Your task to perform on an android device: snooze an email in the gmail app Image 0: 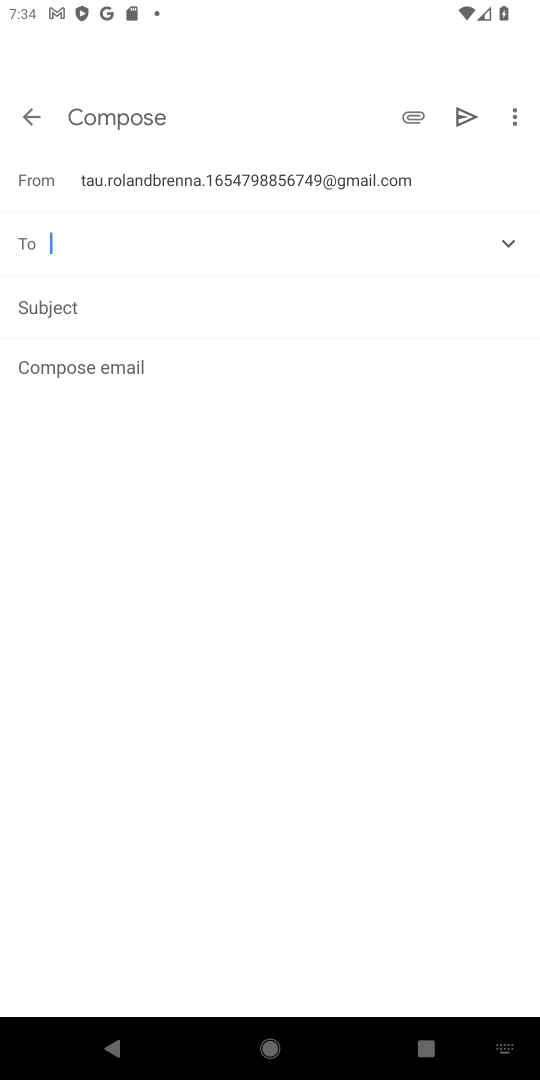
Step 0: press back button
Your task to perform on an android device: snooze an email in the gmail app Image 1: 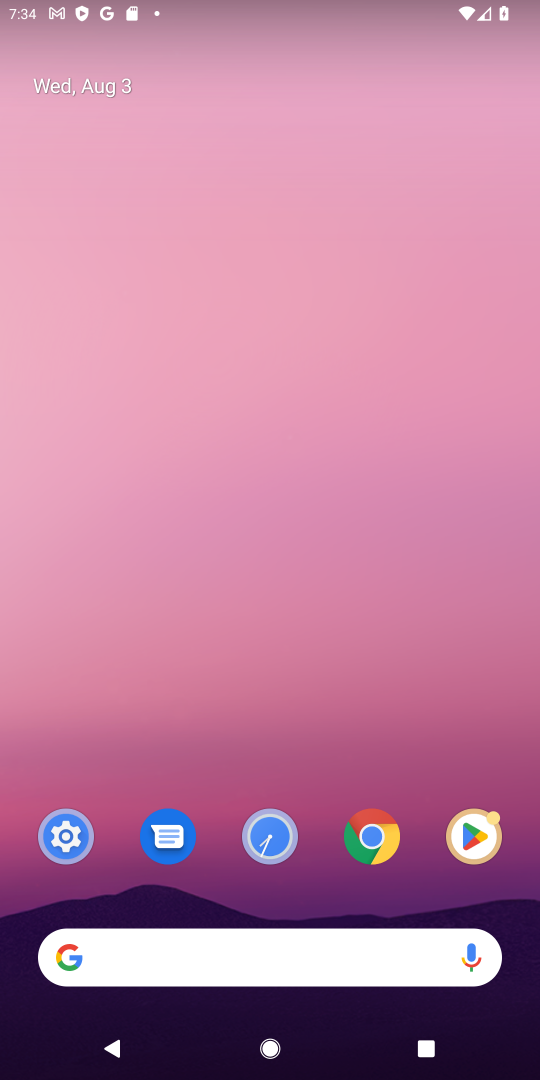
Step 1: drag from (499, 938) to (339, 160)
Your task to perform on an android device: snooze an email in the gmail app Image 2: 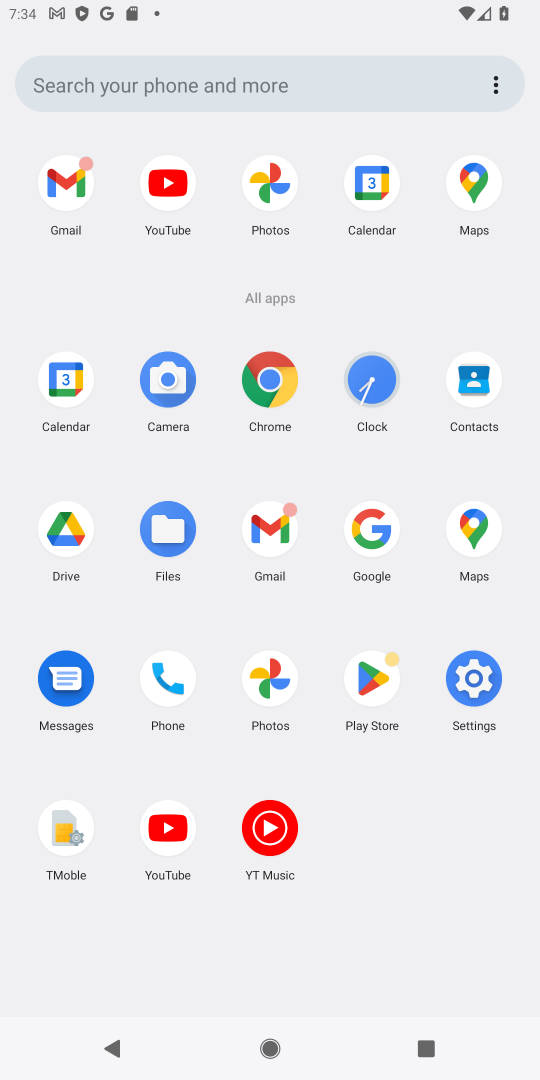
Step 2: click (275, 514)
Your task to perform on an android device: snooze an email in the gmail app Image 3: 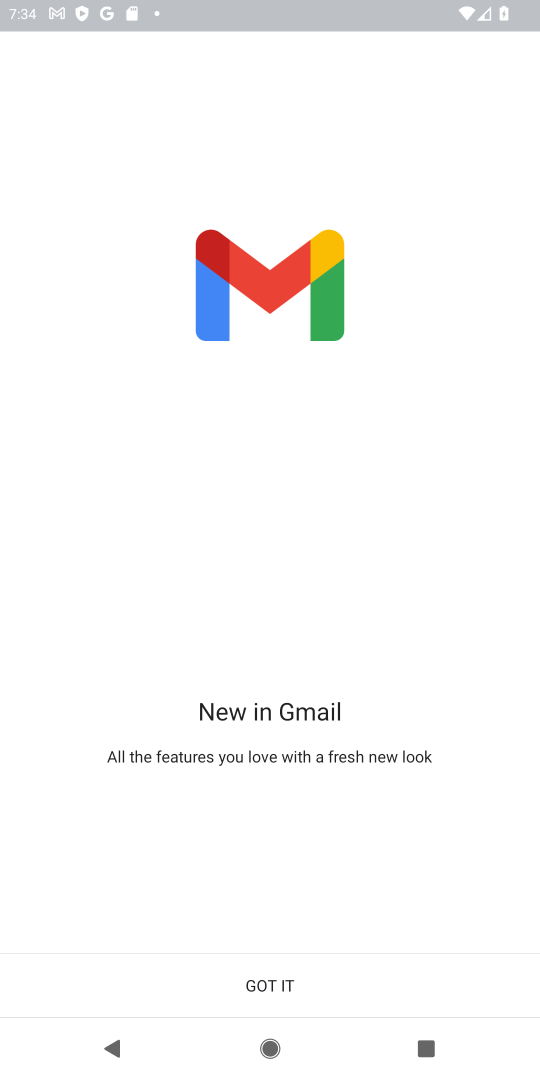
Step 3: click (293, 997)
Your task to perform on an android device: snooze an email in the gmail app Image 4: 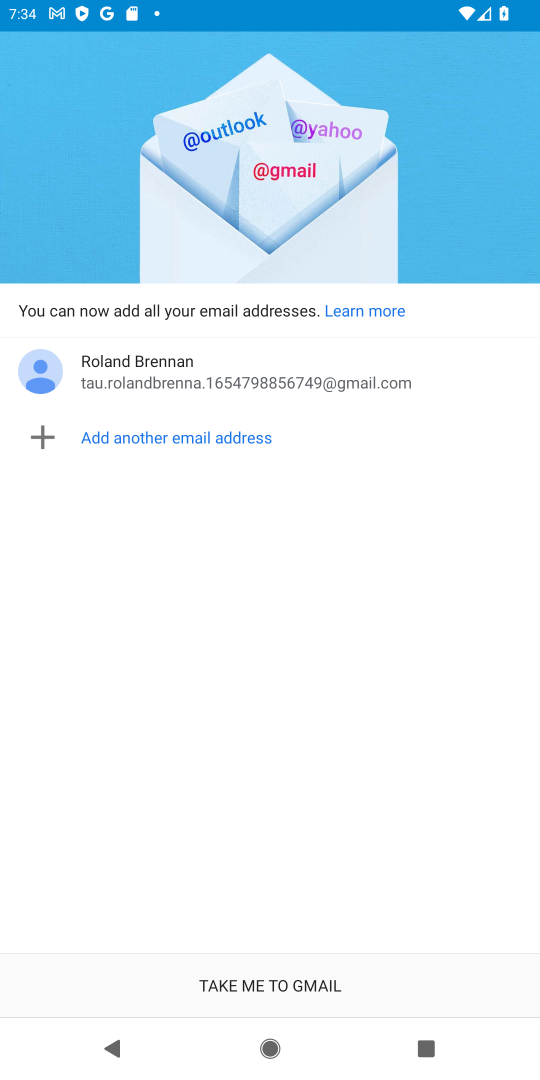
Step 4: click (293, 988)
Your task to perform on an android device: snooze an email in the gmail app Image 5: 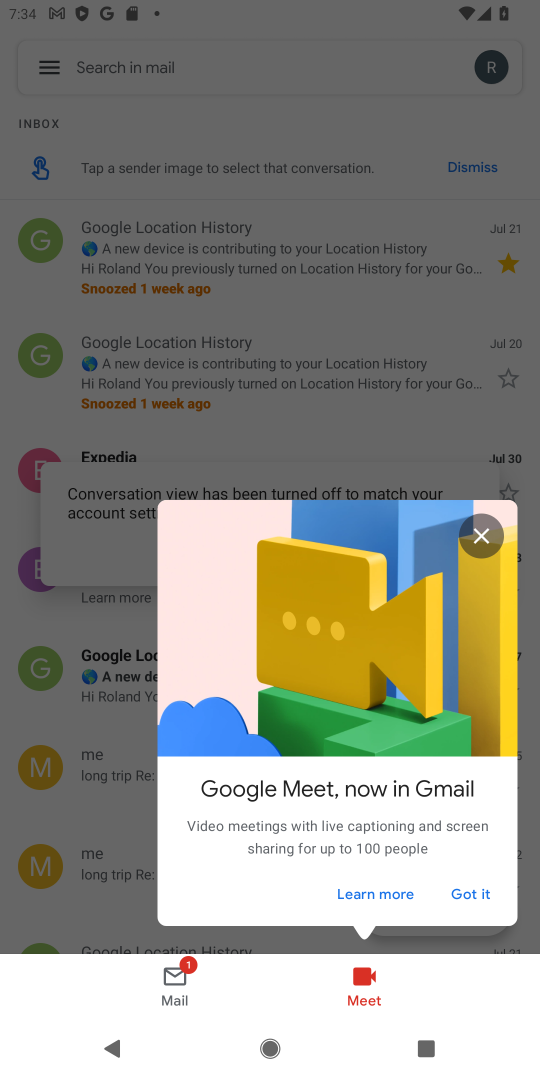
Step 5: click (486, 537)
Your task to perform on an android device: snooze an email in the gmail app Image 6: 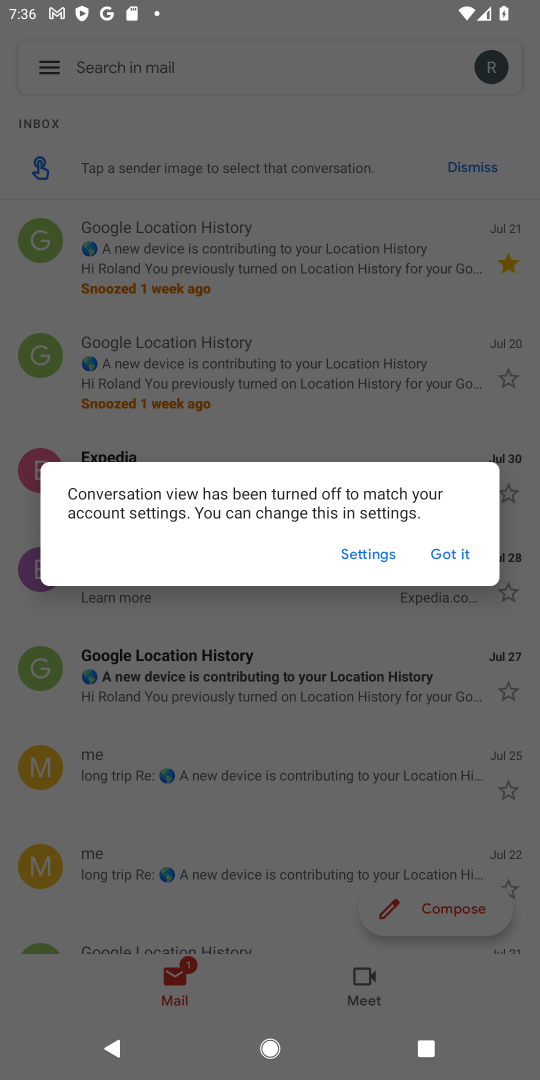
Step 6: press home button
Your task to perform on an android device: snooze an email in the gmail app Image 7: 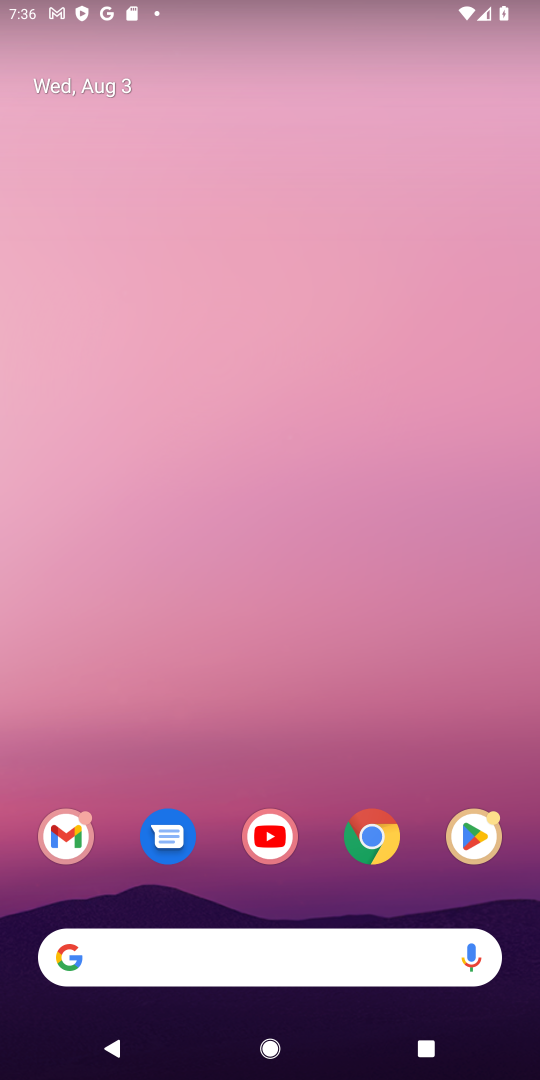
Step 7: click (62, 838)
Your task to perform on an android device: snooze an email in the gmail app Image 8: 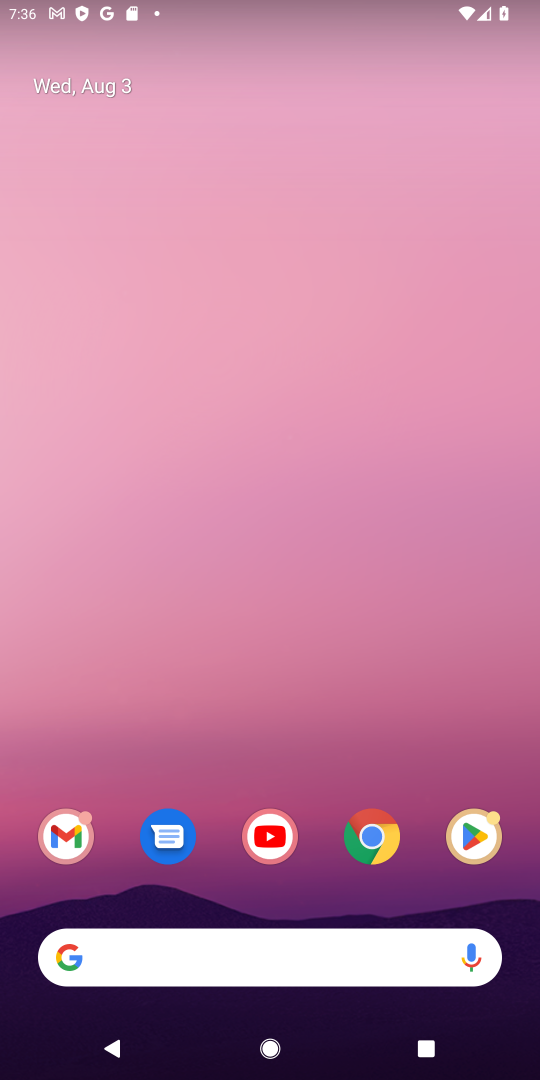
Step 8: click (63, 834)
Your task to perform on an android device: snooze an email in the gmail app Image 9: 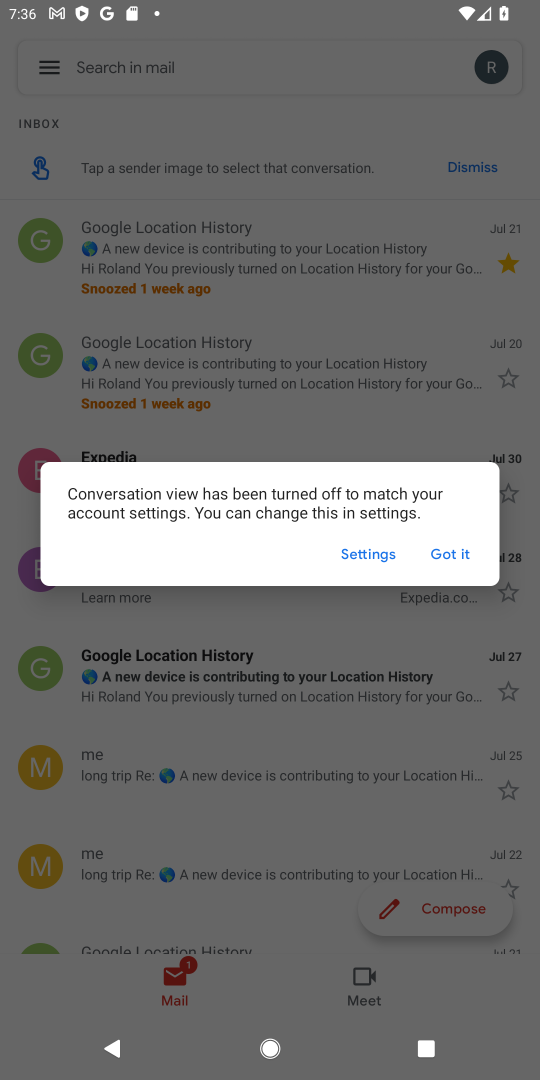
Step 9: click (447, 552)
Your task to perform on an android device: snooze an email in the gmail app Image 10: 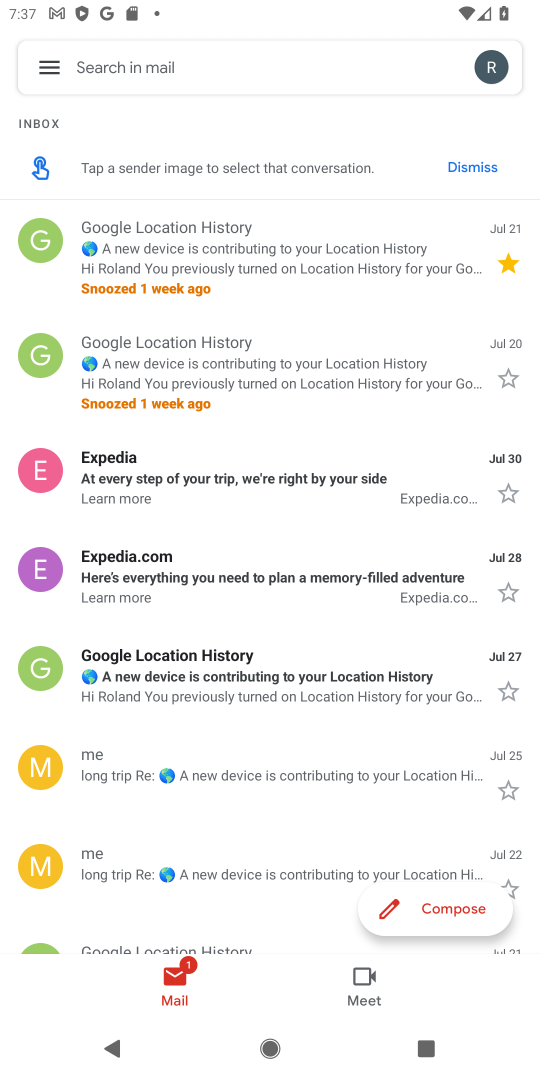
Step 10: click (297, 489)
Your task to perform on an android device: snooze an email in the gmail app Image 11: 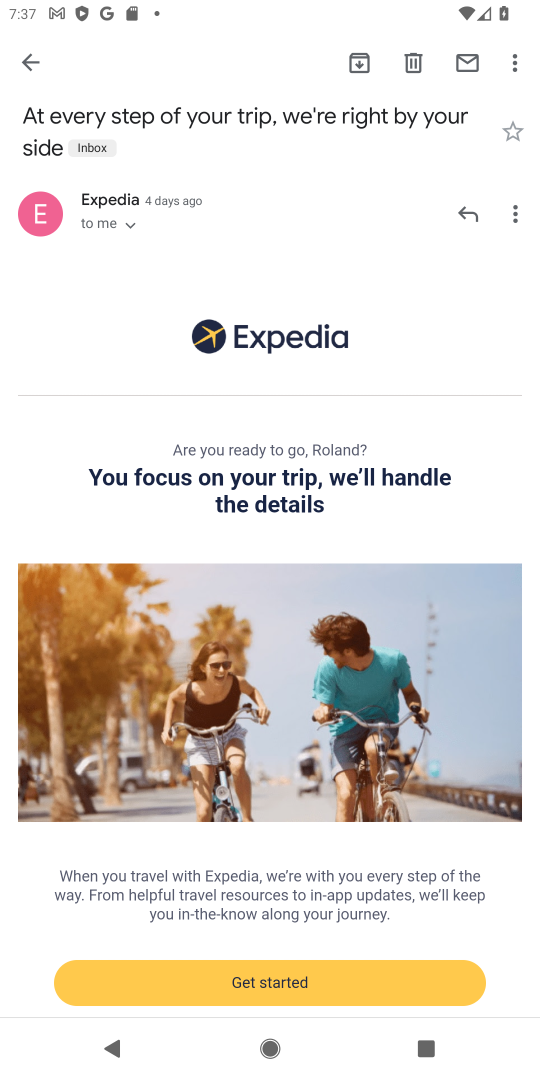
Step 11: click (509, 207)
Your task to perform on an android device: snooze an email in the gmail app Image 12: 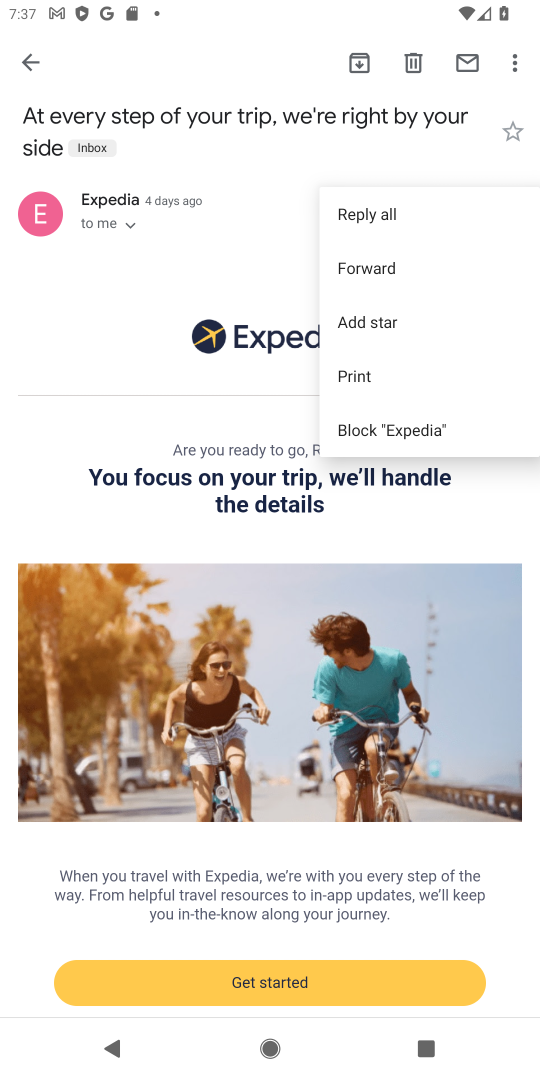
Step 12: click (267, 212)
Your task to perform on an android device: snooze an email in the gmail app Image 13: 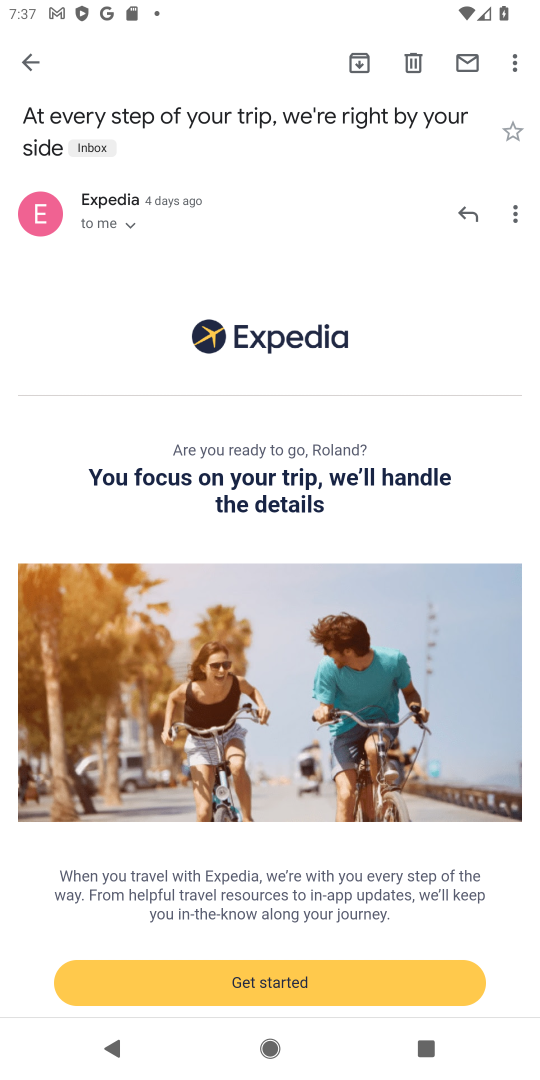
Step 13: click (515, 52)
Your task to perform on an android device: snooze an email in the gmail app Image 14: 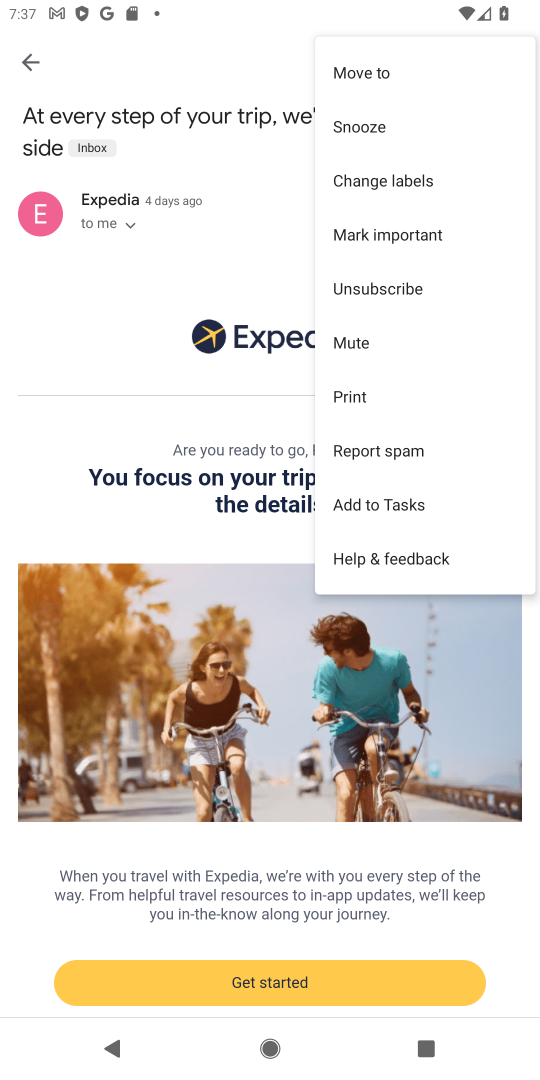
Step 14: click (368, 123)
Your task to perform on an android device: snooze an email in the gmail app Image 15: 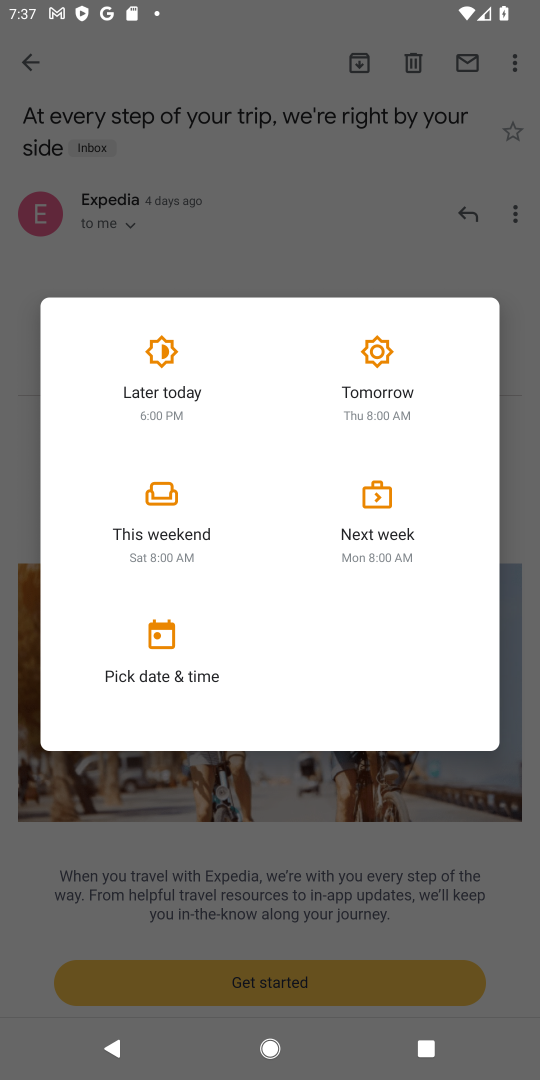
Step 15: click (152, 504)
Your task to perform on an android device: snooze an email in the gmail app Image 16: 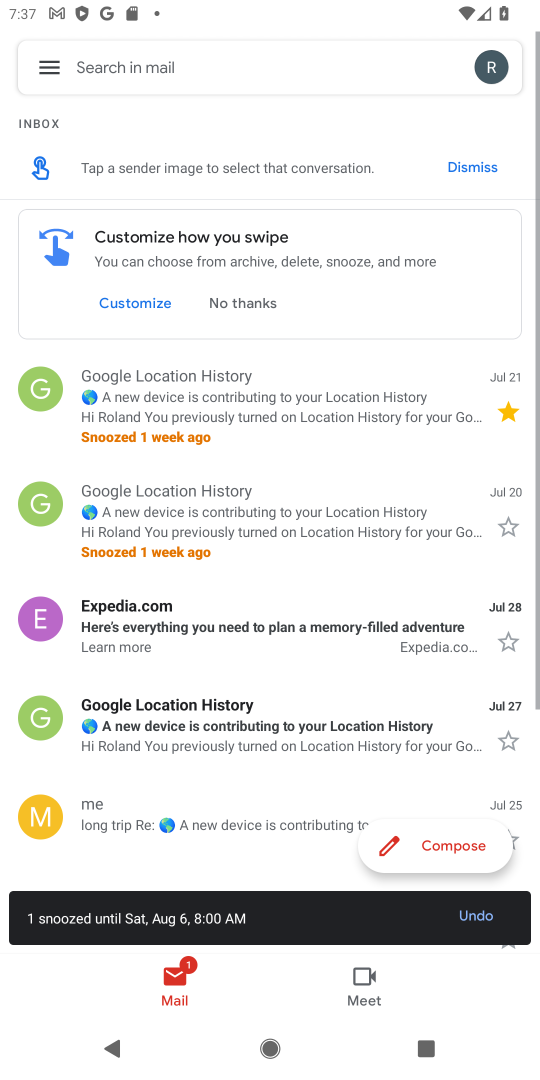
Step 16: task complete